Your task to perform on an android device: open sync settings in chrome Image 0: 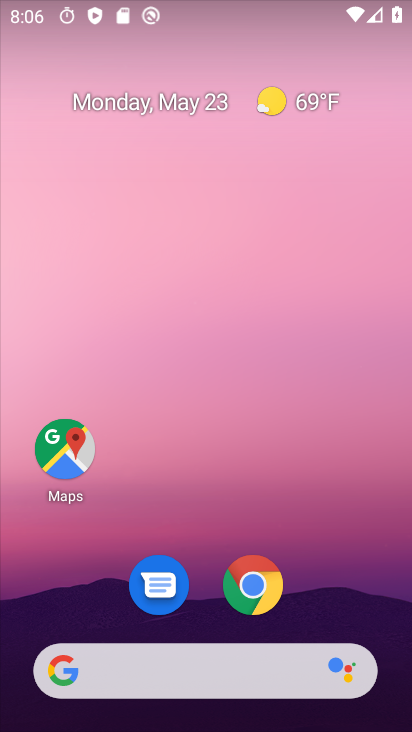
Step 0: click (261, 579)
Your task to perform on an android device: open sync settings in chrome Image 1: 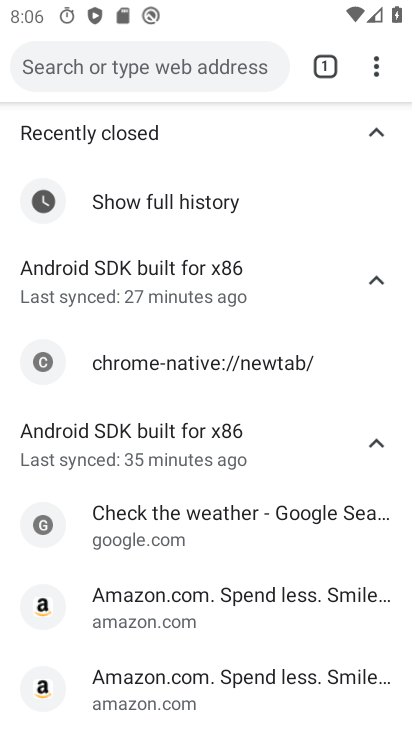
Step 1: click (374, 63)
Your task to perform on an android device: open sync settings in chrome Image 2: 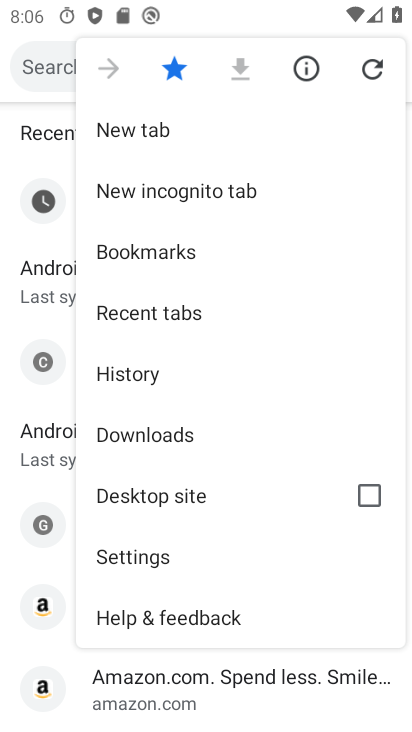
Step 2: click (186, 545)
Your task to perform on an android device: open sync settings in chrome Image 3: 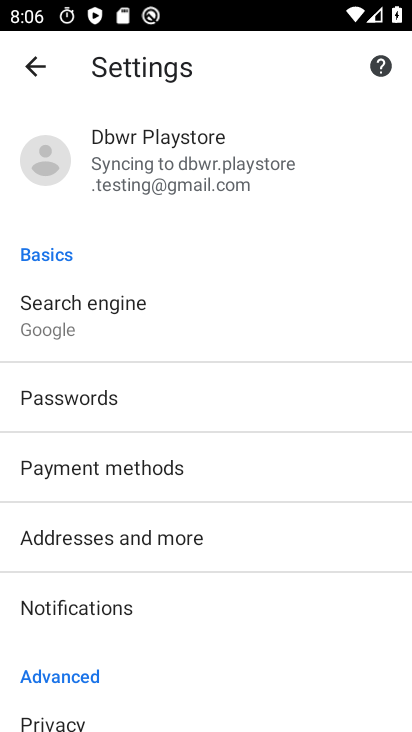
Step 3: click (181, 159)
Your task to perform on an android device: open sync settings in chrome Image 4: 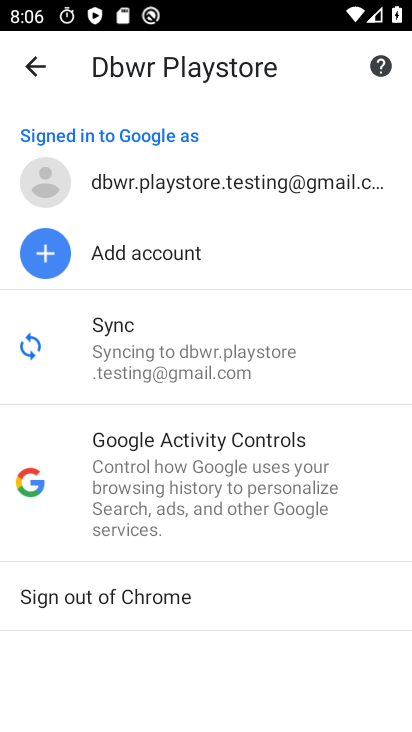
Step 4: click (155, 349)
Your task to perform on an android device: open sync settings in chrome Image 5: 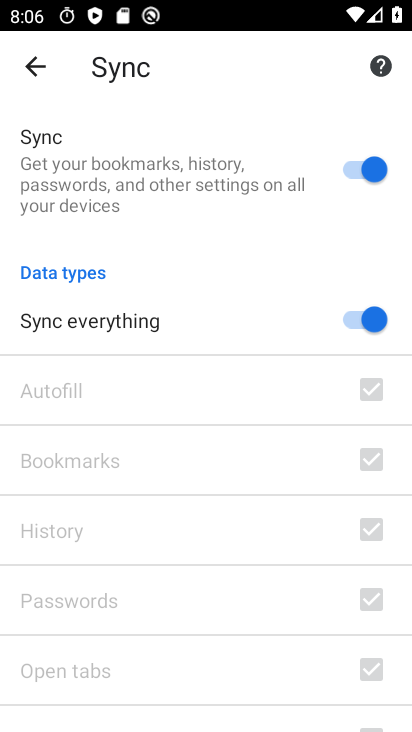
Step 5: task complete